Your task to perform on an android device: Go to Yahoo.com Image 0: 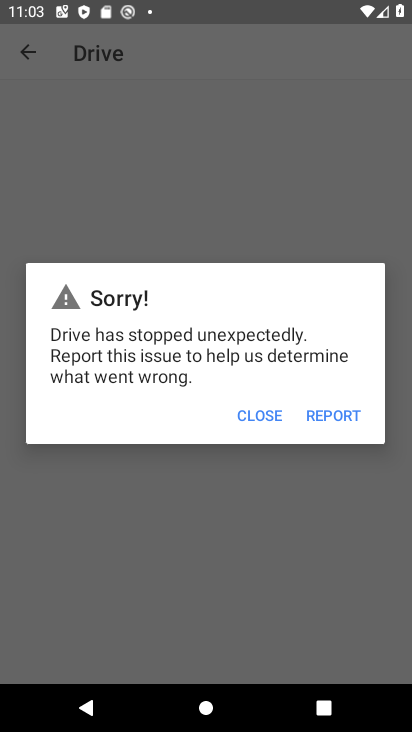
Step 0: press home button
Your task to perform on an android device: Go to Yahoo.com Image 1: 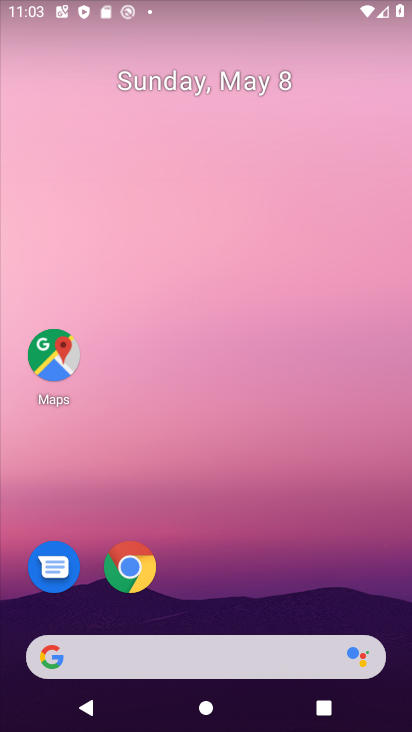
Step 1: click (260, 4)
Your task to perform on an android device: Go to Yahoo.com Image 2: 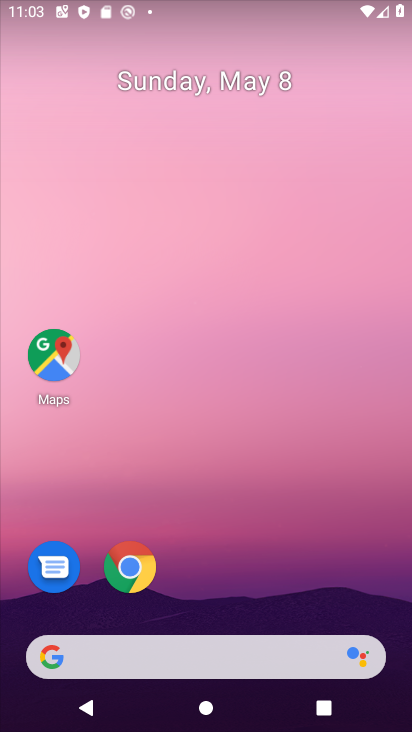
Step 2: click (132, 561)
Your task to perform on an android device: Go to Yahoo.com Image 3: 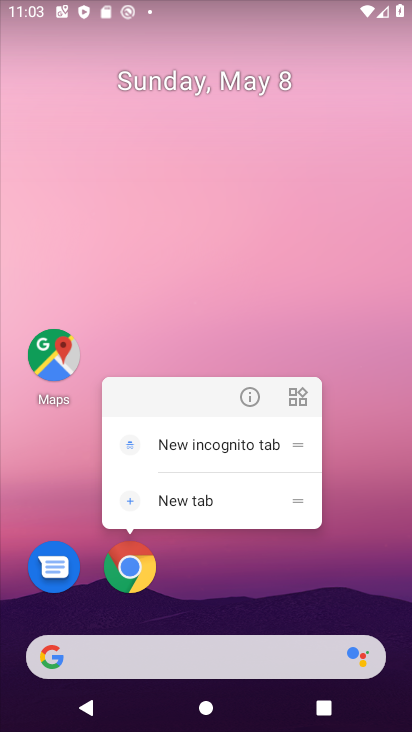
Step 3: click (124, 565)
Your task to perform on an android device: Go to Yahoo.com Image 4: 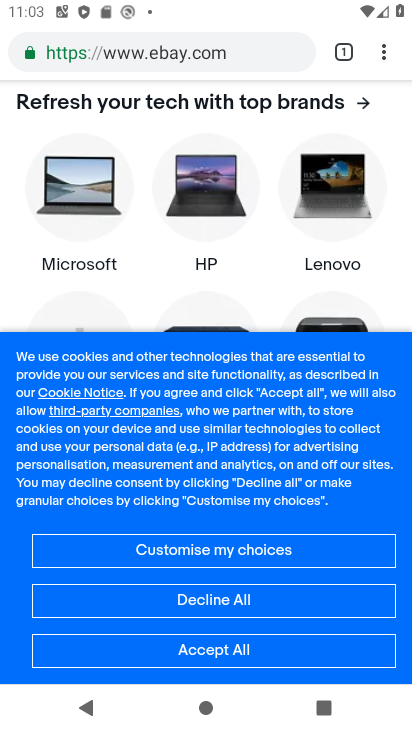
Step 4: click (342, 46)
Your task to perform on an android device: Go to Yahoo.com Image 5: 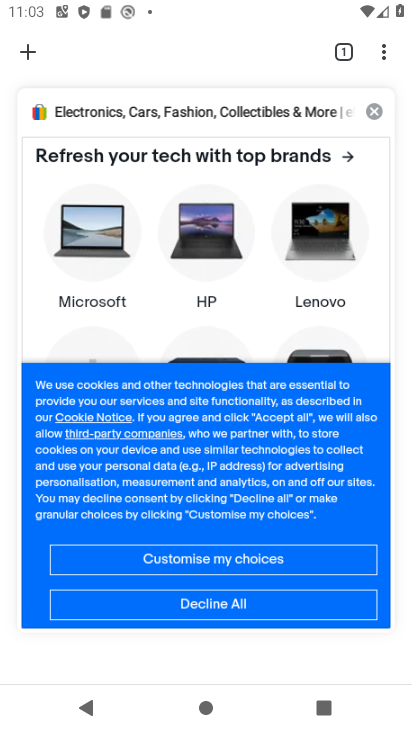
Step 5: click (377, 105)
Your task to perform on an android device: Go to Yahoo.com Image 6: 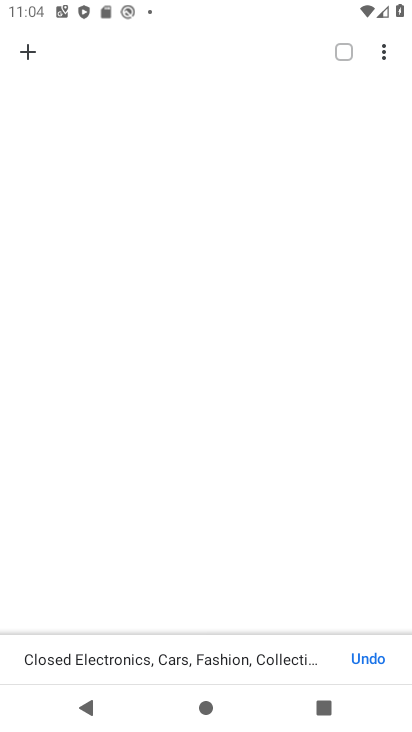
Step 6: click (31, 57)
Your task to perform on an android device: Go to Yahoo.com Image 7: 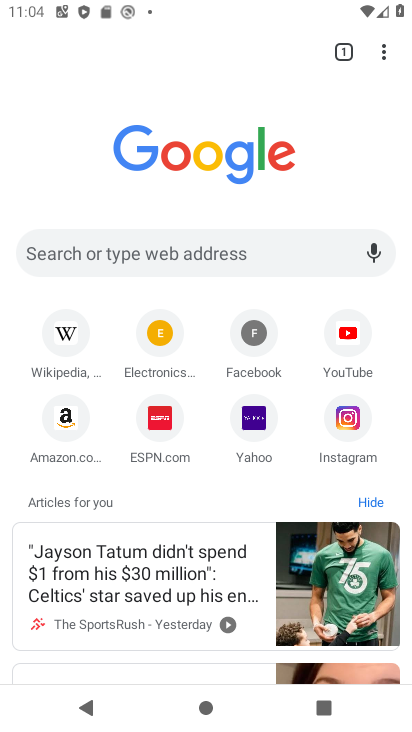
Step 7: click (243, 415)
Your task to perform on an android device: Go to Yahoo.com Image 8: 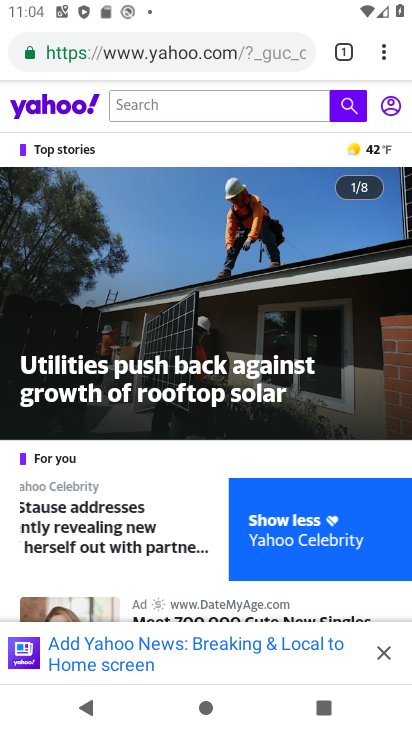
Step 8: task complete